Your task to perform on an android device: open app "Instagram" (install if not already installed) Image 0: 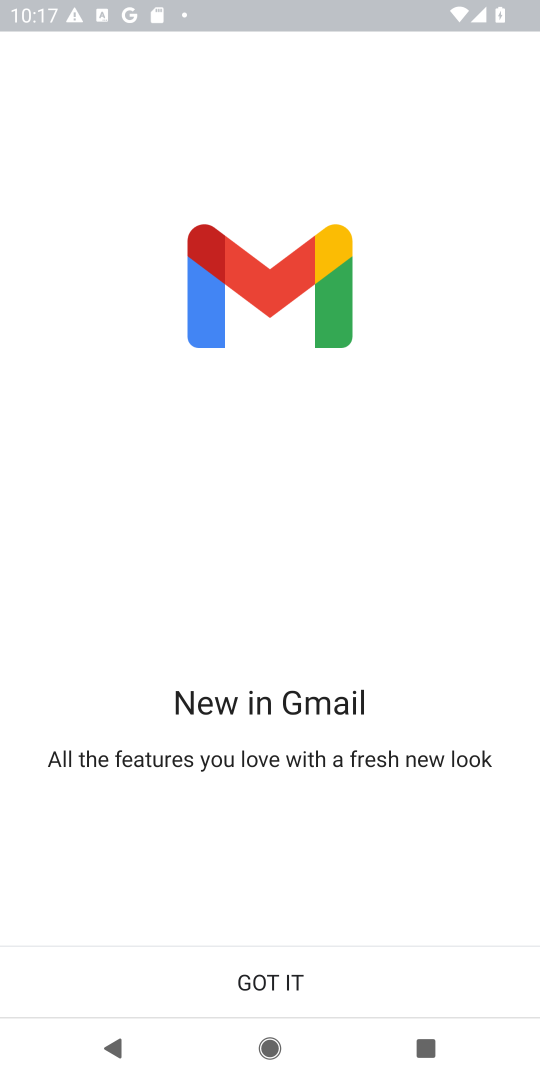
Step 0: press home button
Your task to perform on an android device: open app "Instagram" (install if not already installed) Image 1: 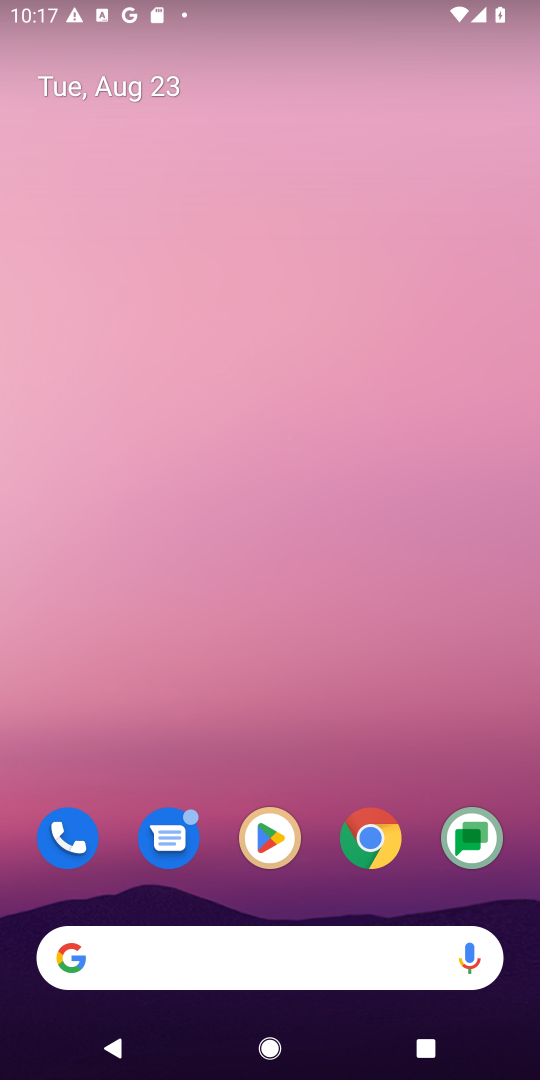
Step 1: click (241, 818)
Your task to perform on an android device: open app "Instagram" (install if not already installed) Image 2: 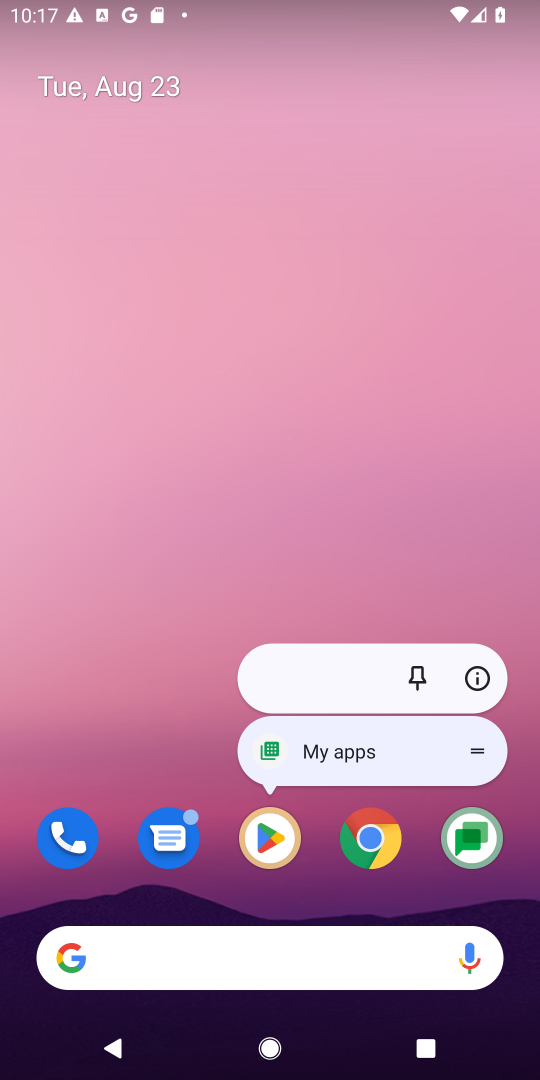
Step 2: click (270, 823)
Your task to perform on an android device: open app "Instagram" (install if not already installed) Image 3: 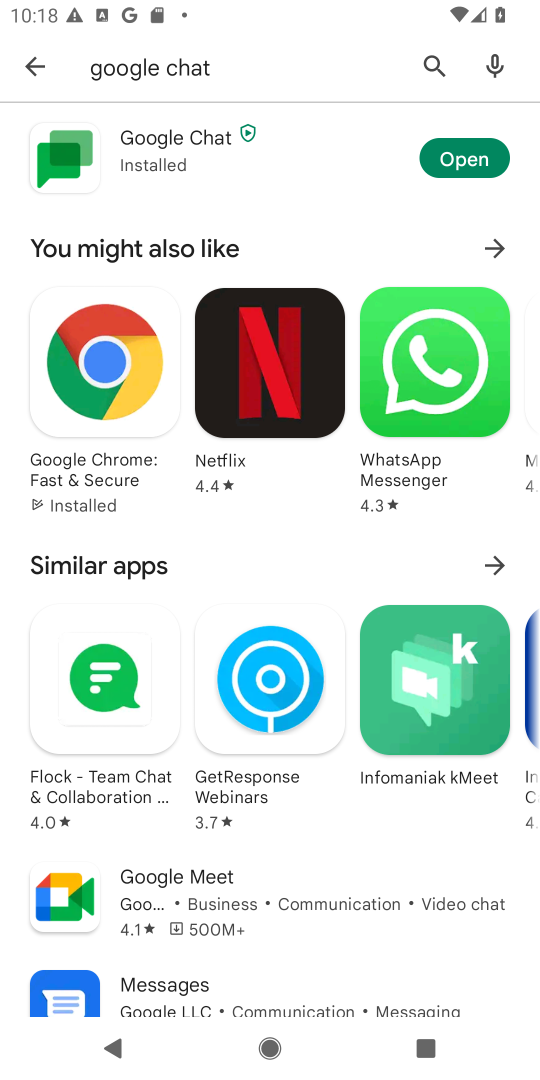
Step 3: click (429, 56)
Your task to perform on an android device: open app "Instagram" (install if not already installed) Image 4: 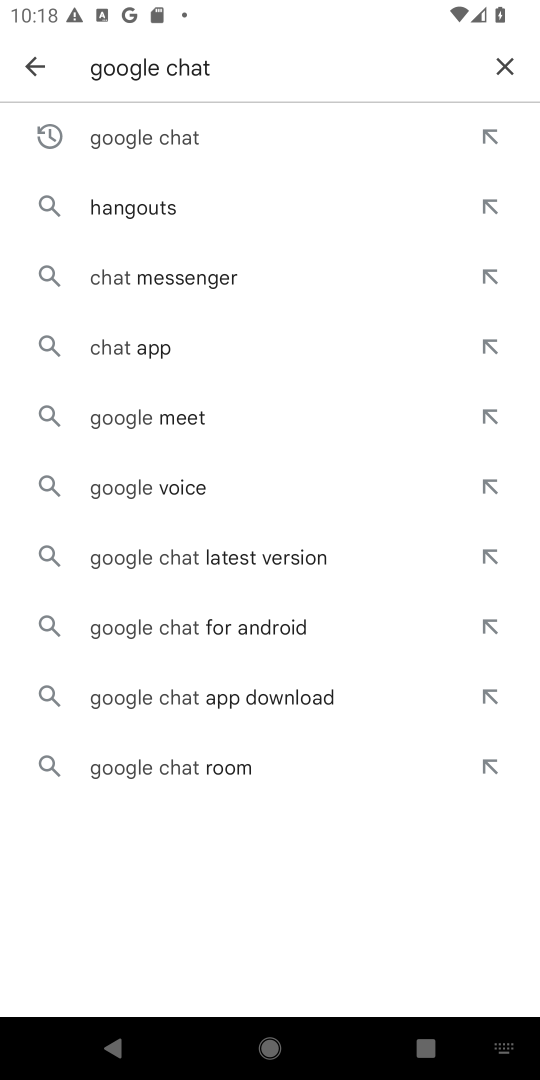
Step 4: click (494, 75)
Your task to perform on an android device: open app "Instagram" (install if not already installed) Image 5: 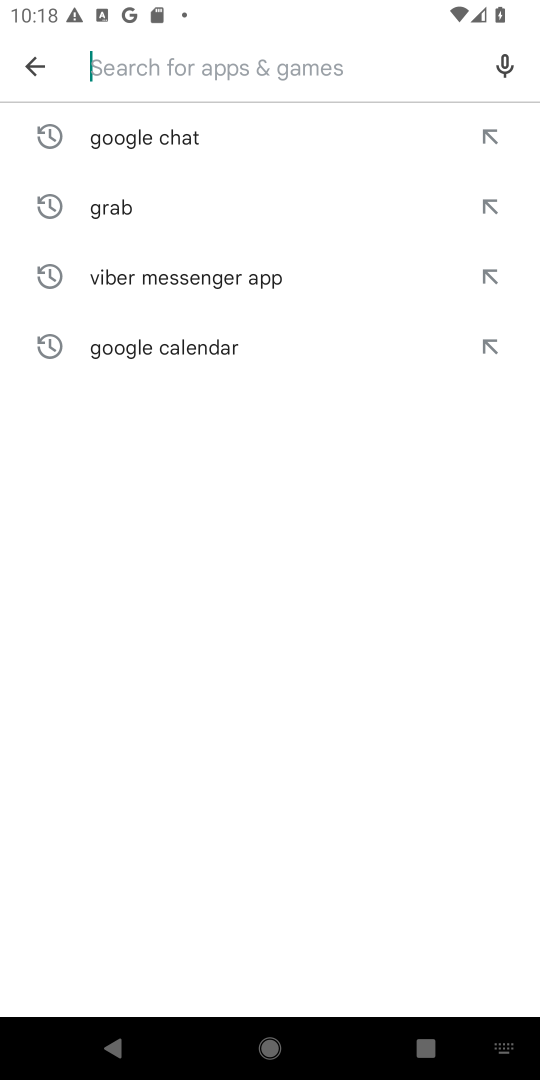
Step 5: type "Instagram"
Your task to perform on an android device: open app "Instagram" (install if not already installed) Image 6: 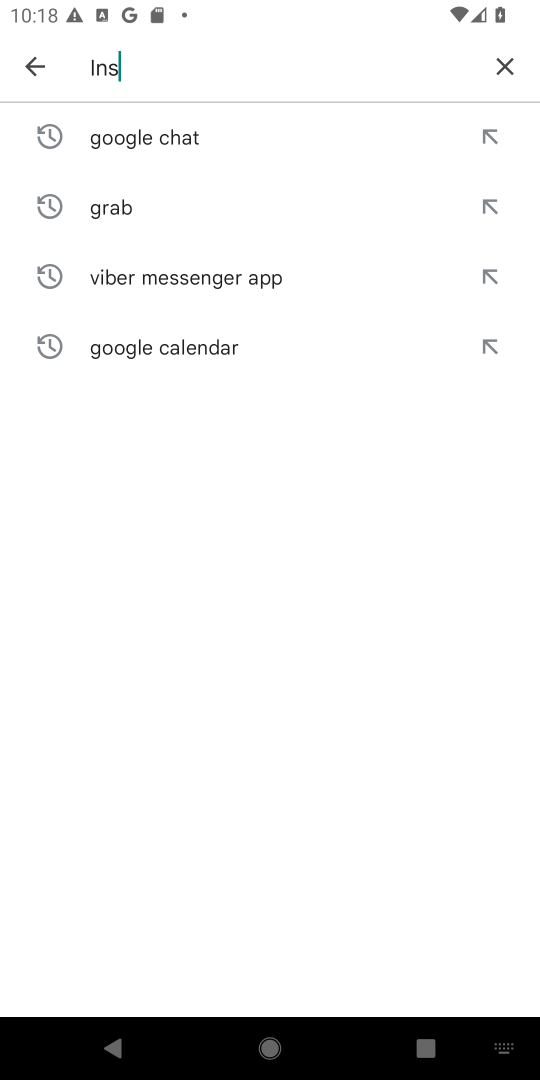
Step 6: type ""
Your task to perform on an android device: open app "Instagram" (install if not already installed) Image 7: 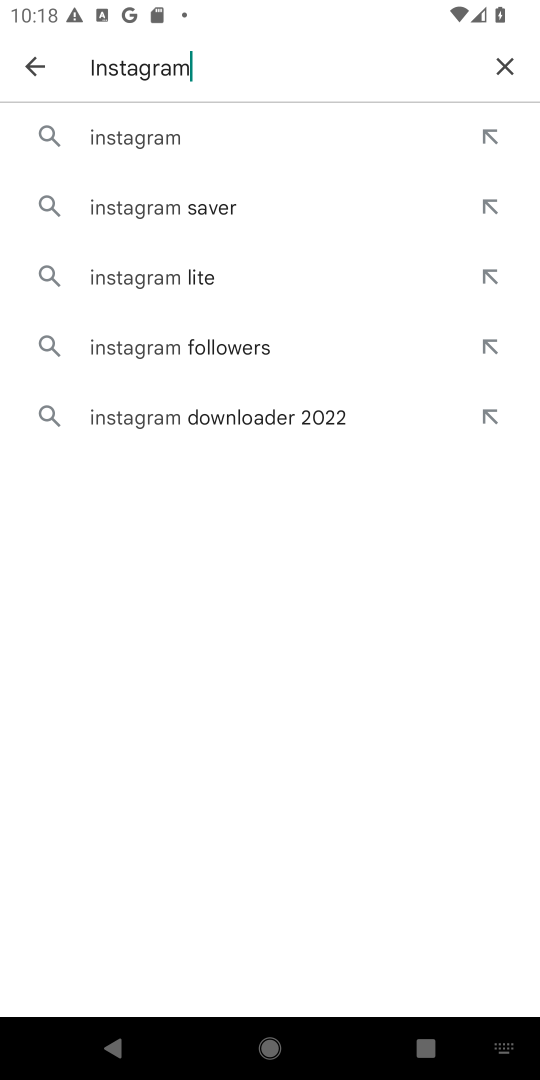
Step 7: click (184, 136)
Your task to perform on an android device: open app "Instagram" (install if not already installed) Image 8: 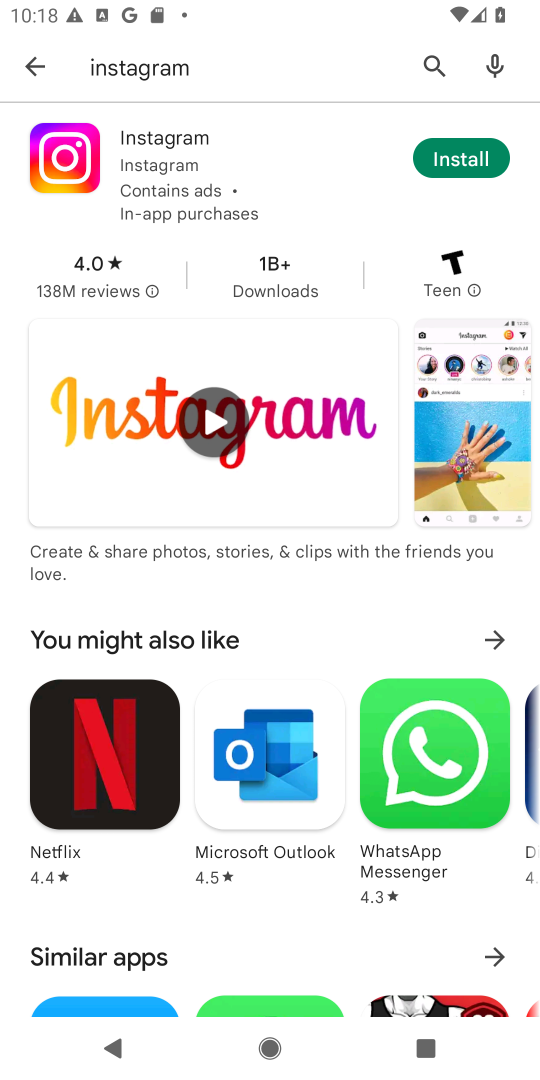
Step 8: click (438, 155)
Your task to perform on an android device: open app "Instagram" (install if not already installed) Image 9: 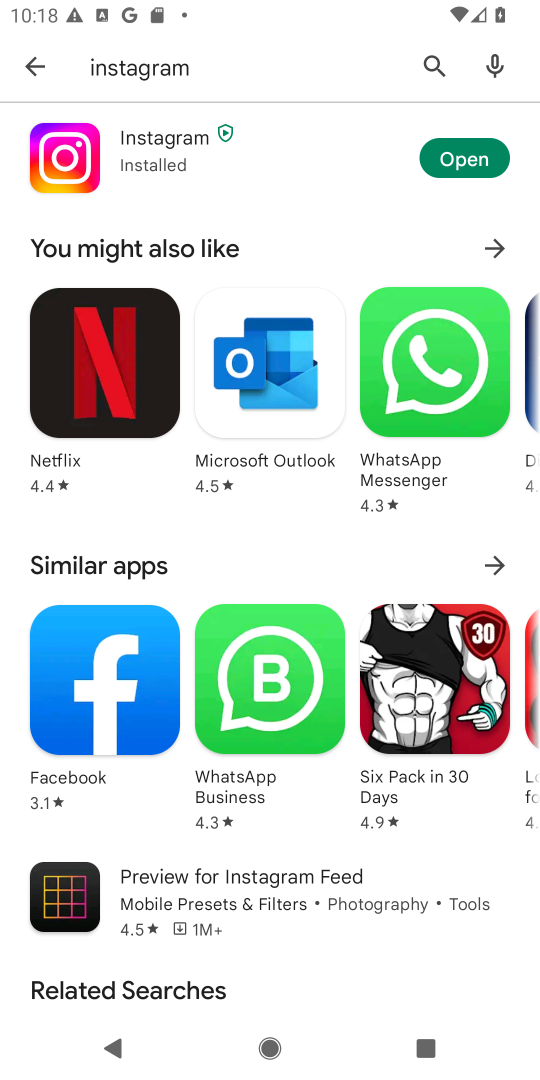
Step 9: click (438, 155)
Your task to perform on an android device: open app "Instagram" (install if not already installed) Image 10: 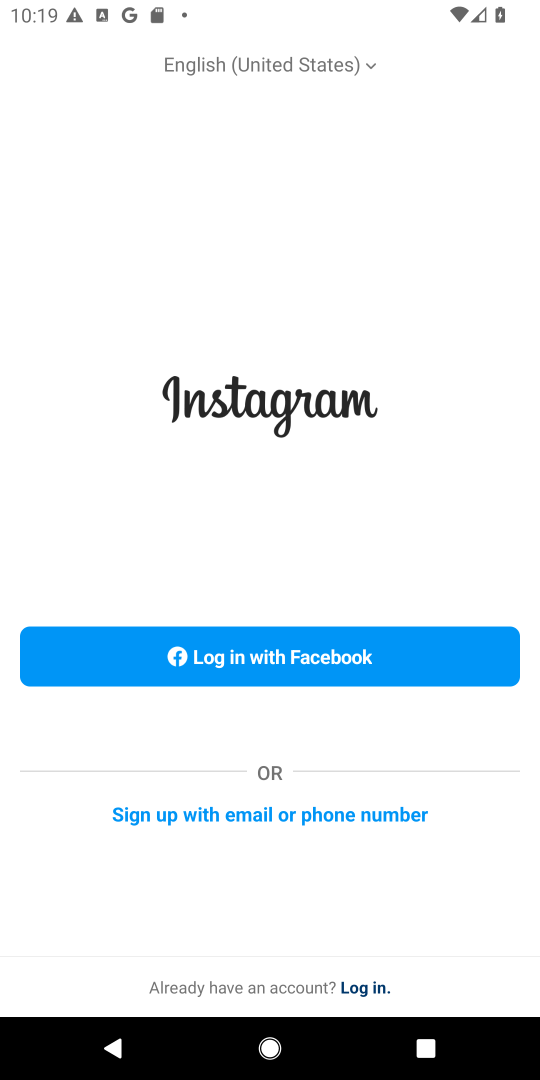
Step 10: task complete